Your task to perform on an android device: Show me recent news Image 0: 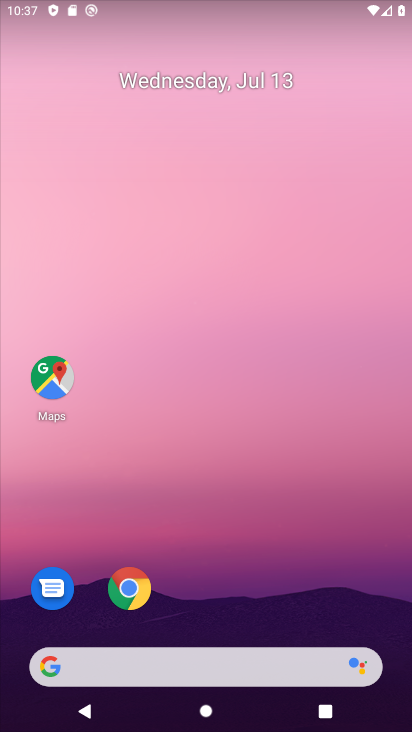
Step 0: drag from (281, 608) to (285, 104)
Your task to perform on an android device: Show me recent news Image 1: 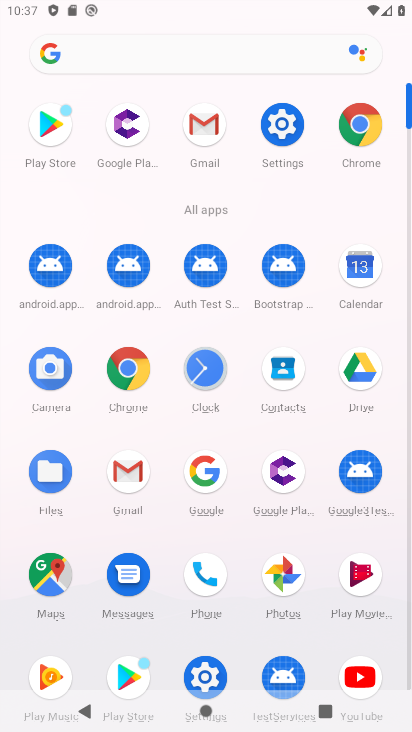
Step 1: click (367, 133)
Your task to perform on an android device: Show me recent news Image 2: 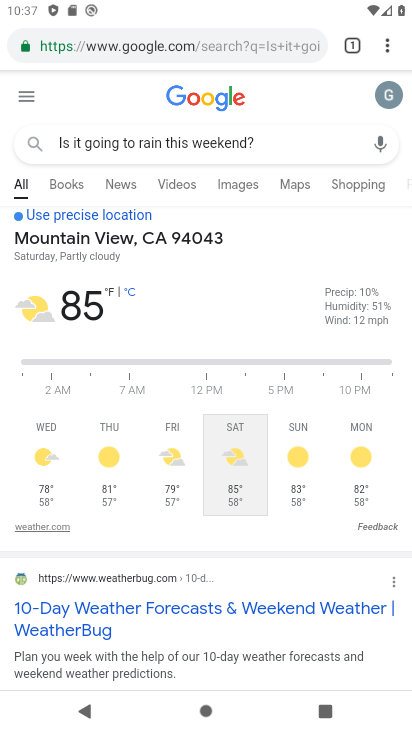
Step 2: click (266, 142)
Your task to perform on an android device: Show me recent news Image 3: 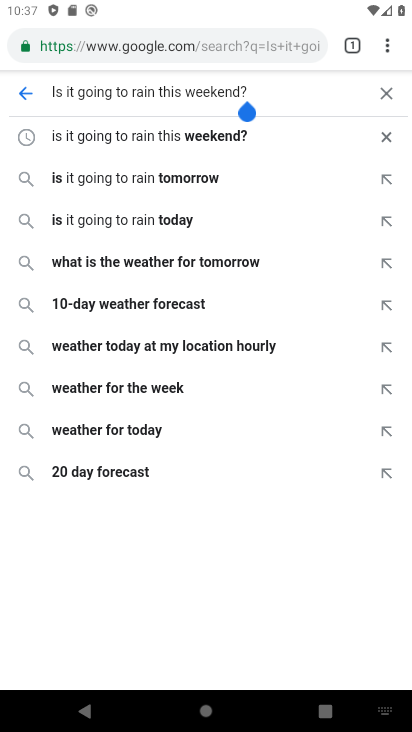
Step 3: click (388, 91)
Your task to perform on an android device: Show me recent news Image 4: 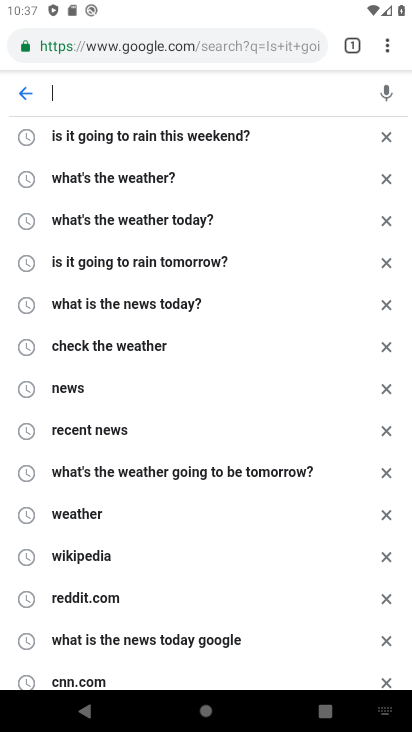
Step 4: click (104, 428)
Your task to perform on an android device: Show me recent news Image 5: 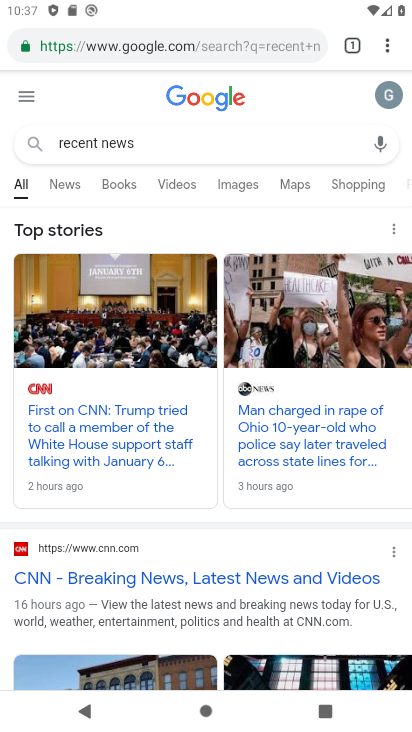
Step 5: task complete